Your task to perform on an android device: Search for sushi restaurants on Maps Image 0: 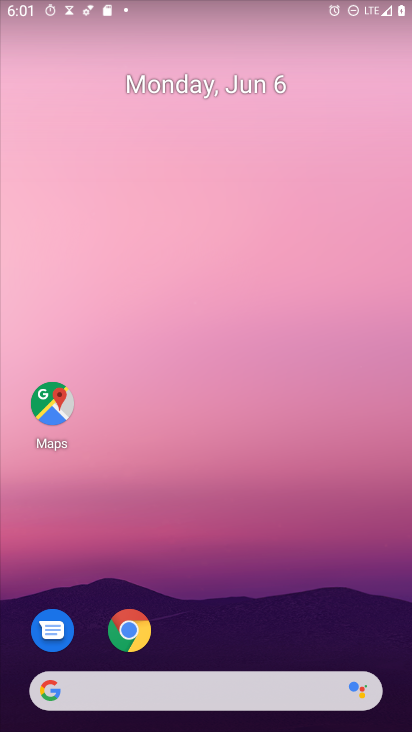
Step 0: click (56, 405)
Your task to perform on an android device: Search for sushi restaurants on Maps Image 1: 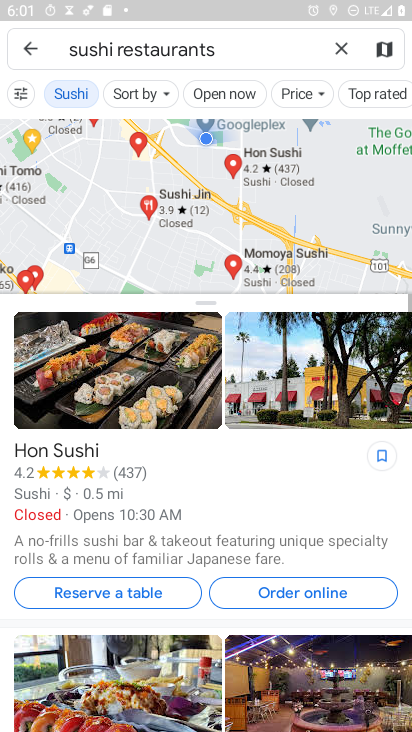
Step 1: task complete